Your task to perform on an android device: Open Google Chrome Image 0: 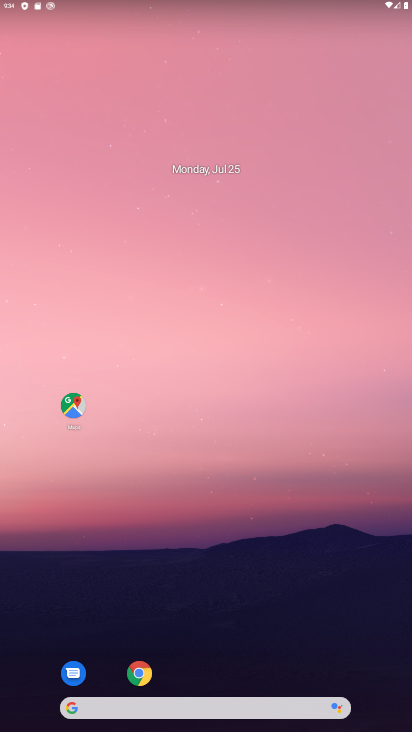
Step 0: drag from (263, 643) to (233, 121)
Your task to perform on an android device: Open Google Chrome Image 1: 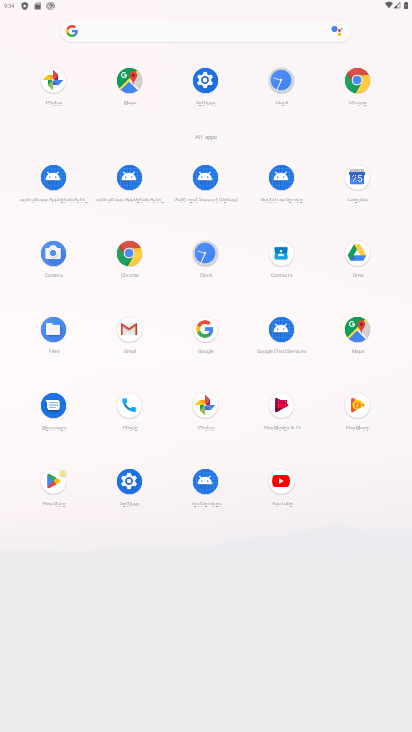
Step 1: click (118, 248)
Your task to perform on an android device: Open Google Chrome Image 2: 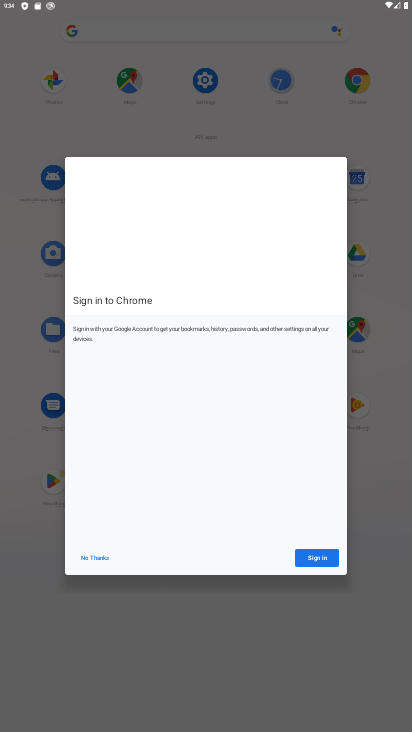
Step 2: click (322, 543)
Your task to perform on an android device: Open Google Chrome Image 3: 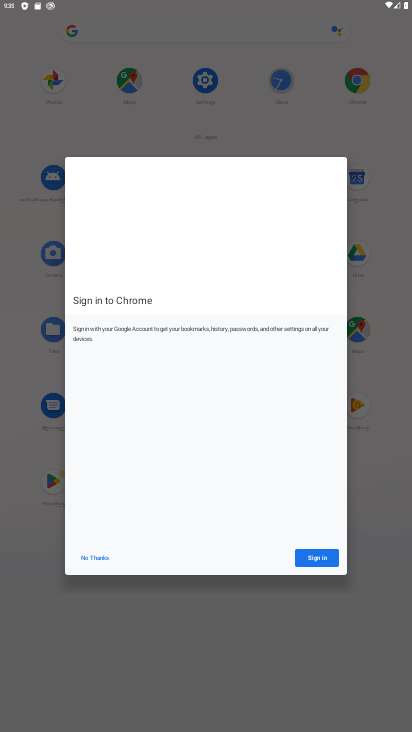
Step 3: click (317, 549)
Your task to perform on an android device: Open Google Chrome Image 4: 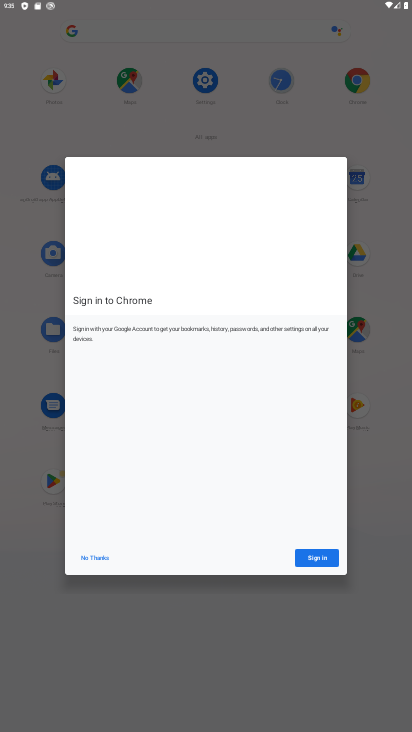
Step 4: task complete